Your task to perform on an android device: Go to Google maps Image 0: 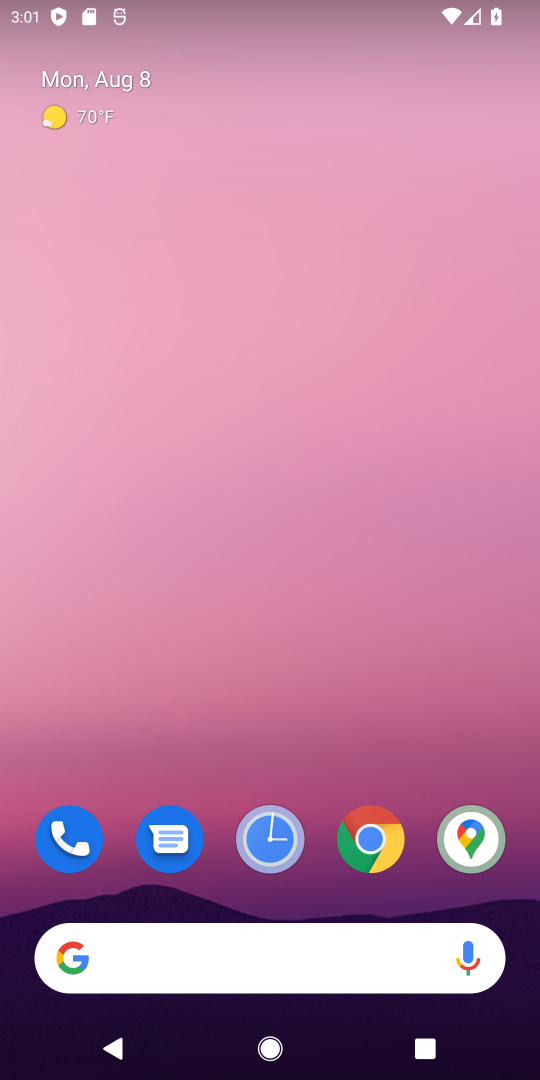
Step 0: press home button
Your task to perform on an android device: Go to Google maps Image 1: 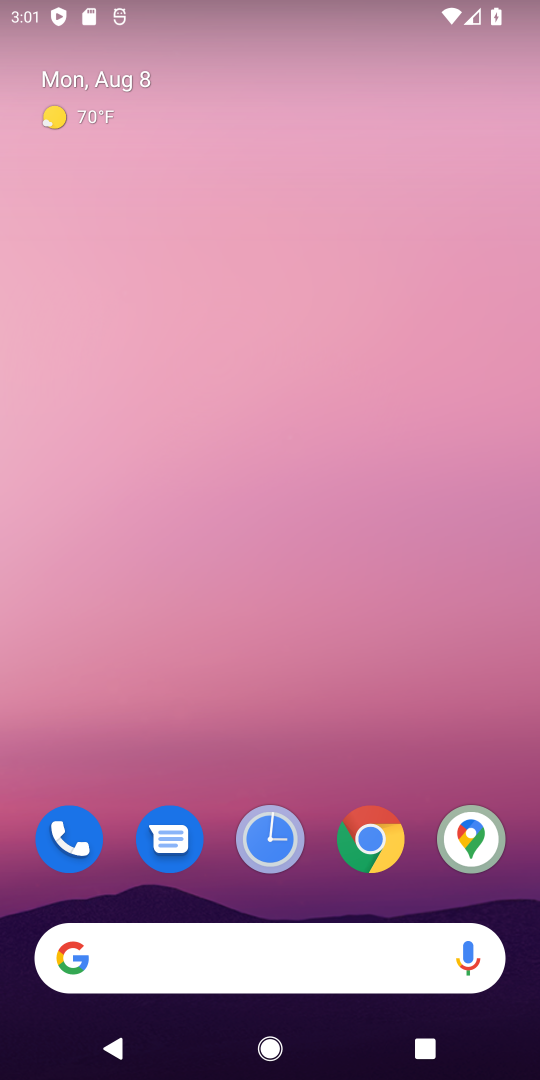
Step 1: drag from (401, 771) to (410, 299)
Your task to perform on an android device: Go to Google maps Image 2: 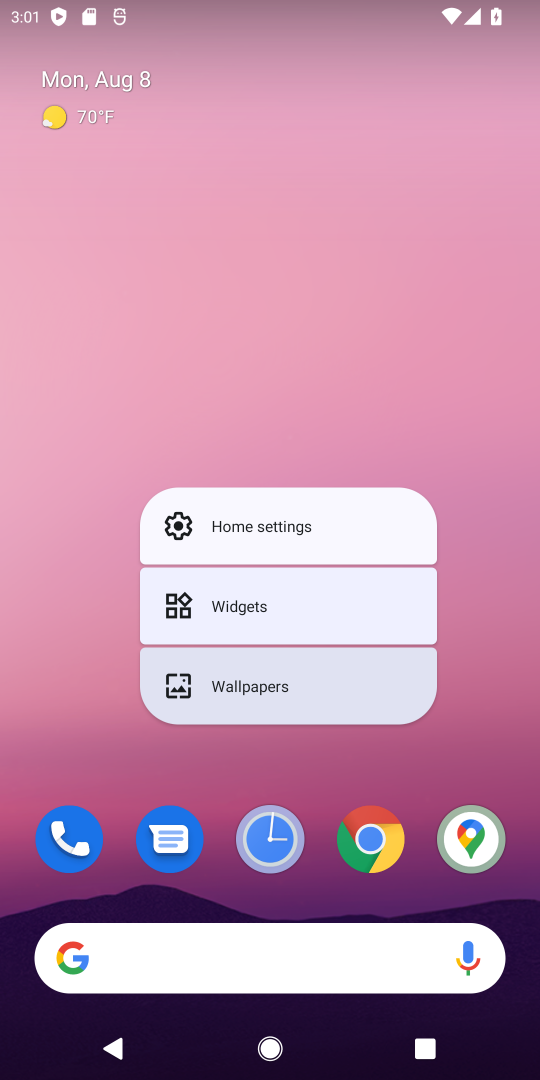
Step 2: click (505, 488)
Your task to perform on an android device: Go to Google maps Image 3: 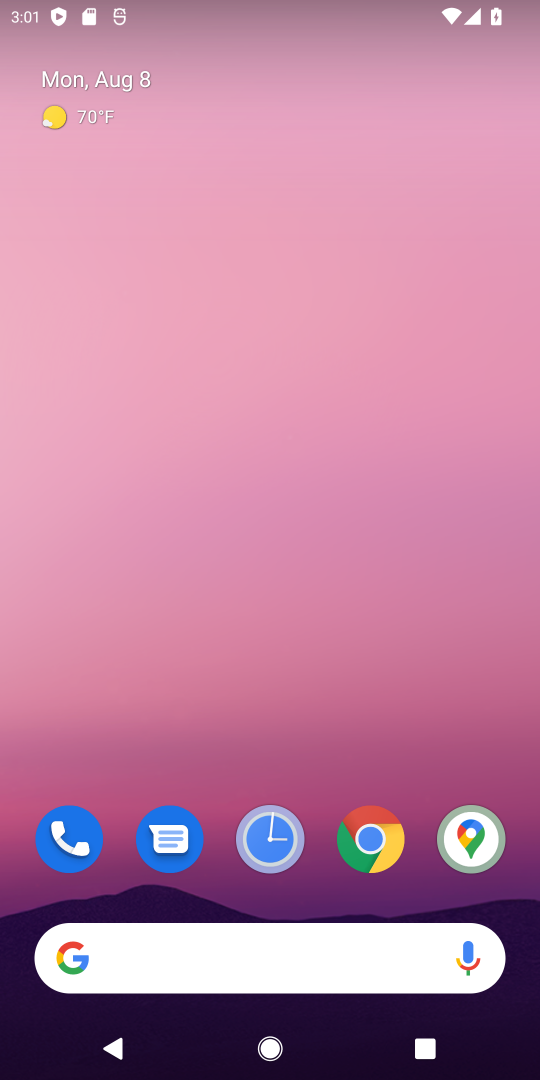
Step 3: drag from (437, 752) to (468, 189)
Your task to perform on an android device: Go to Google maps Image 4: 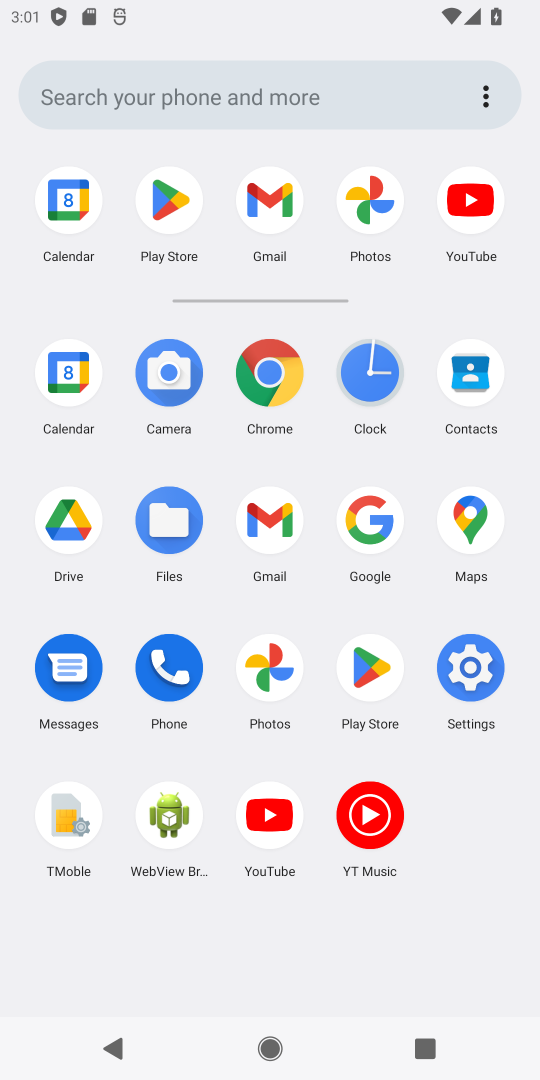
Step 4: click (459, 521)
Your task to perform on an android device: Go to Google maps Image 5: 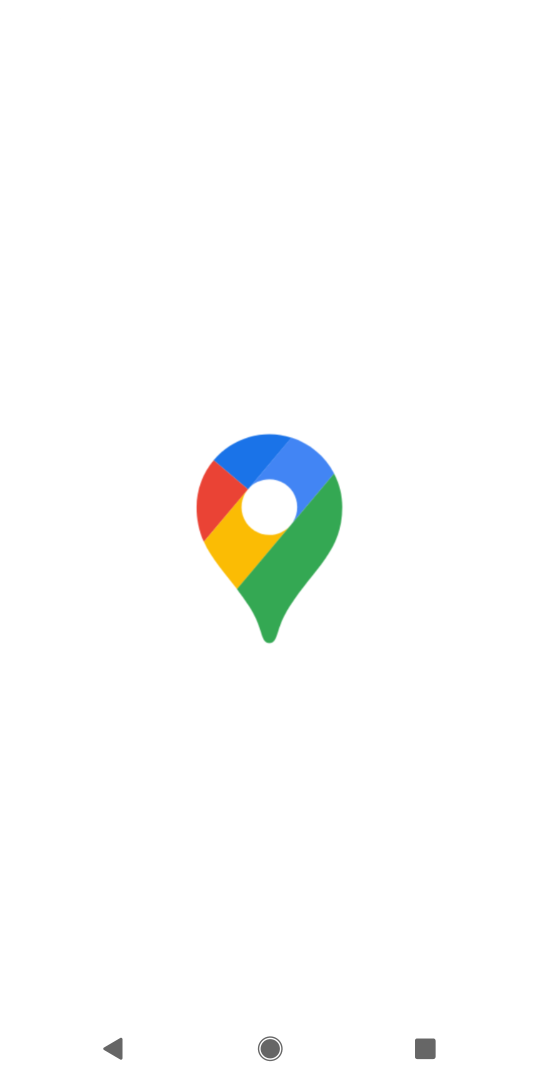
Step 5: task complete